Your task to perform on an android device: see creations saved in the google photos Image 0: 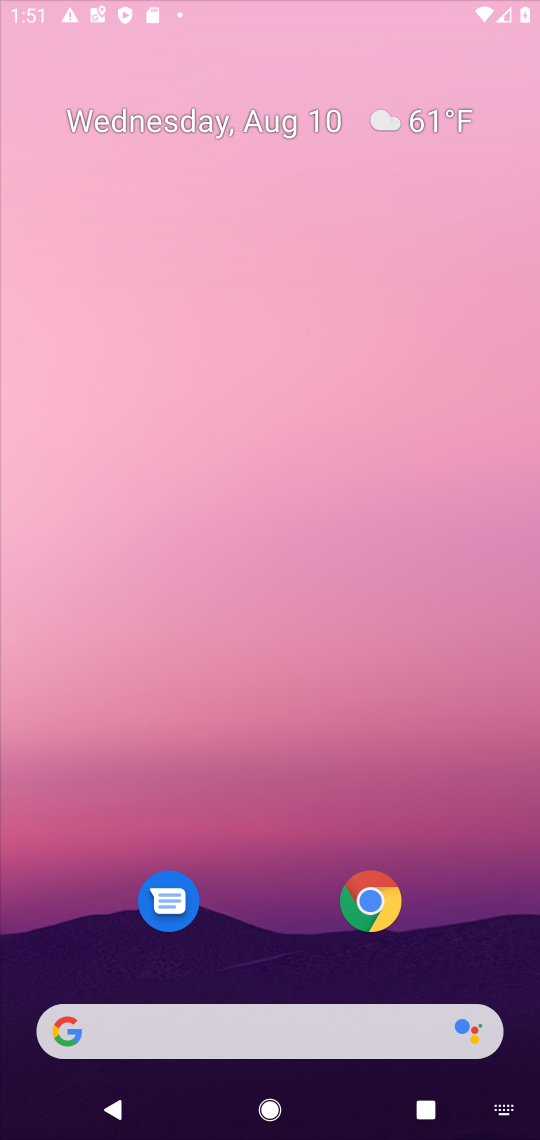
Step 0: click (152, 82)
Your task to perform on an android device: see creations saved in the google photos Image 1: 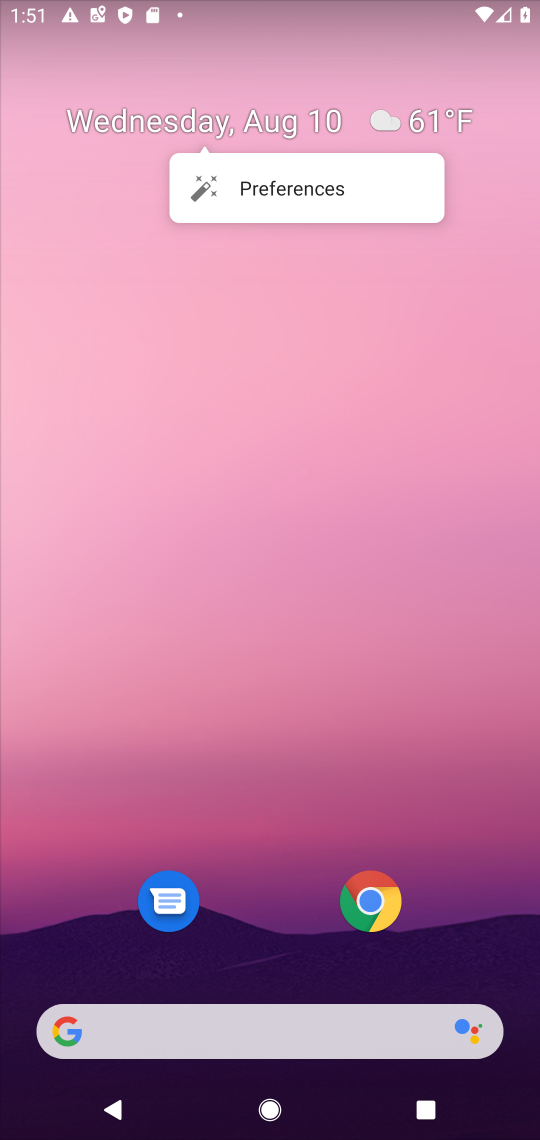
Step 1: click (203, 37)
Your task to perform on an android device: see creations saved in the google photos Image 2: 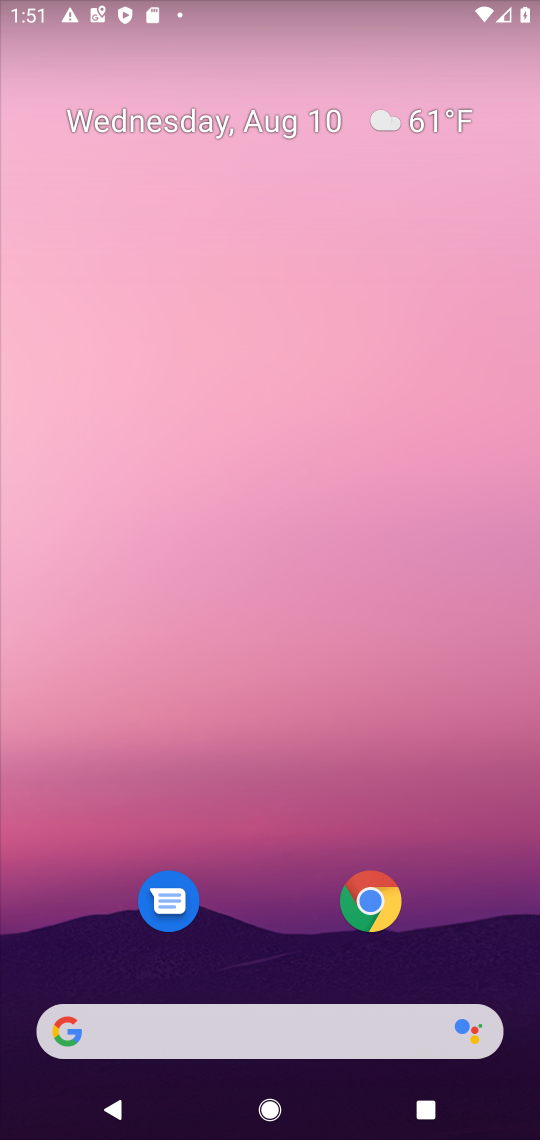
Step 2: drag from (282, 944) to (200, 127)
Your task to perform on an android device: see creations saved in the google photos Image 3: 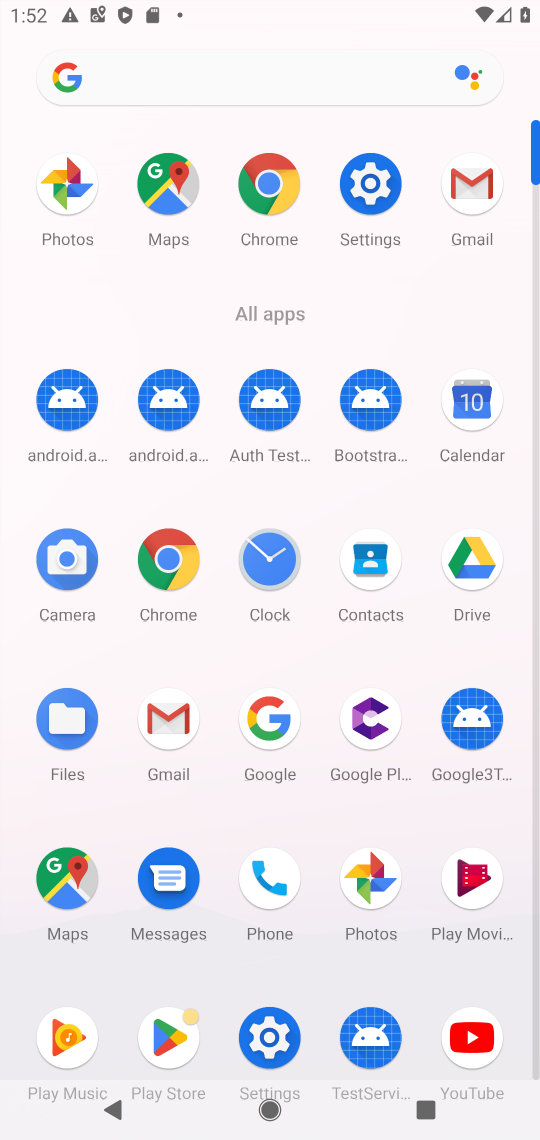
Step 3: click (64, 187)
Your task to perform on an android device: see creations saved in the google photos Image 4: 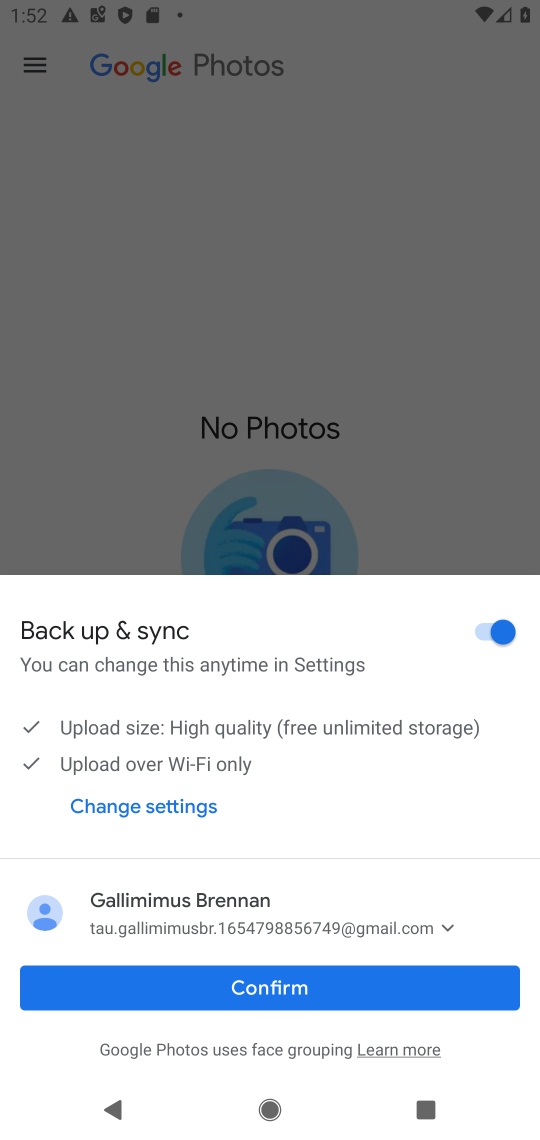
Step 4: click (309, 987)
Your task to perform on an android device: see creations saved in the google photos Image 5: 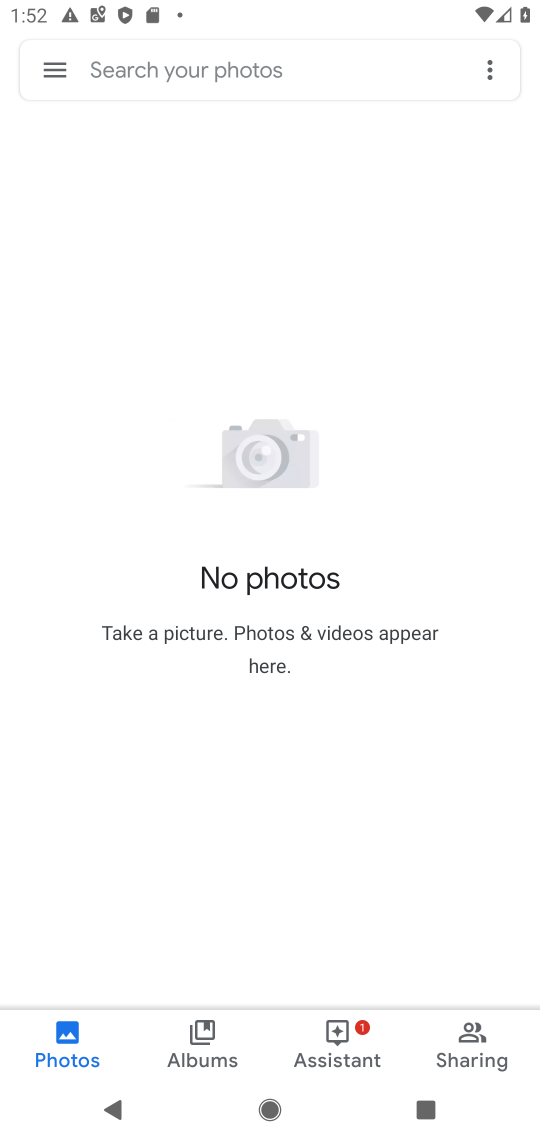
Step 5: click (187, 54)
Your task to perform on an android device: see creations saved in the google photos Image 6: 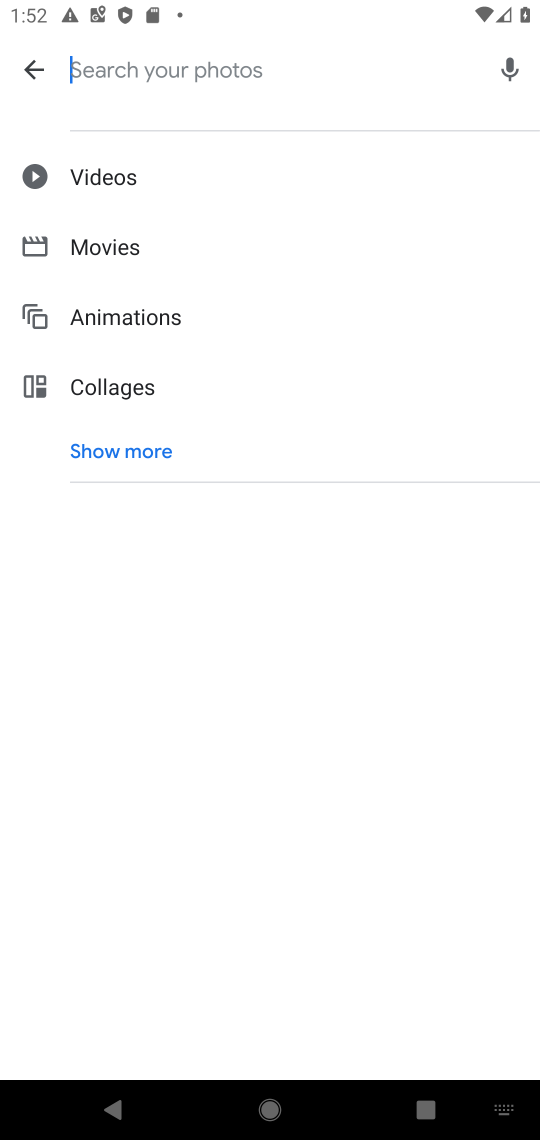
Step 6: click (129, 444)
Your task to perform on an android device: see creations saved in the google photos Image 7: 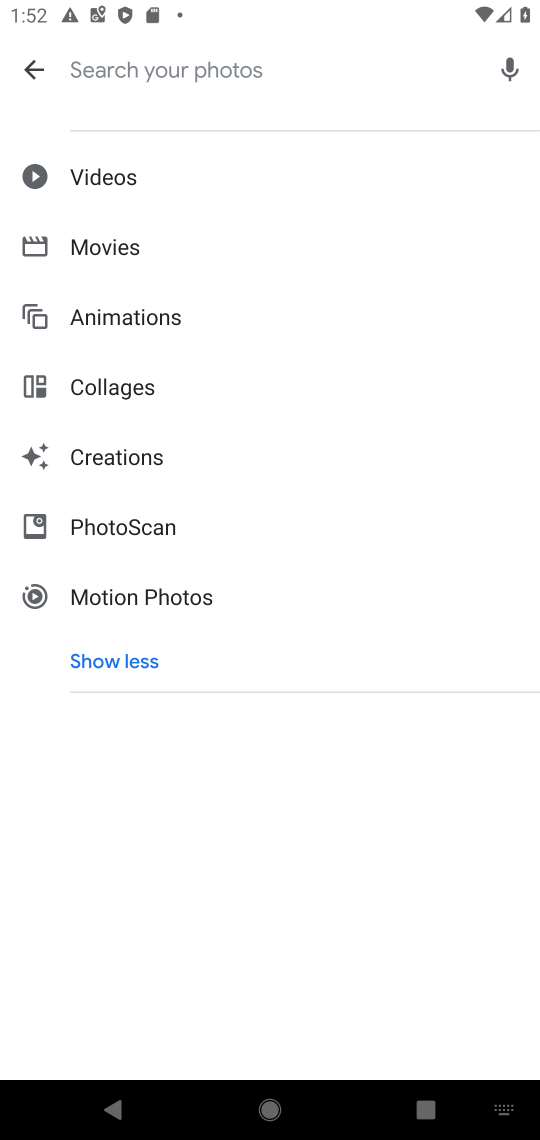
Step 7: click (115, 444)
Your task to perform on an android device: see creations saved in the google photos Image 8: 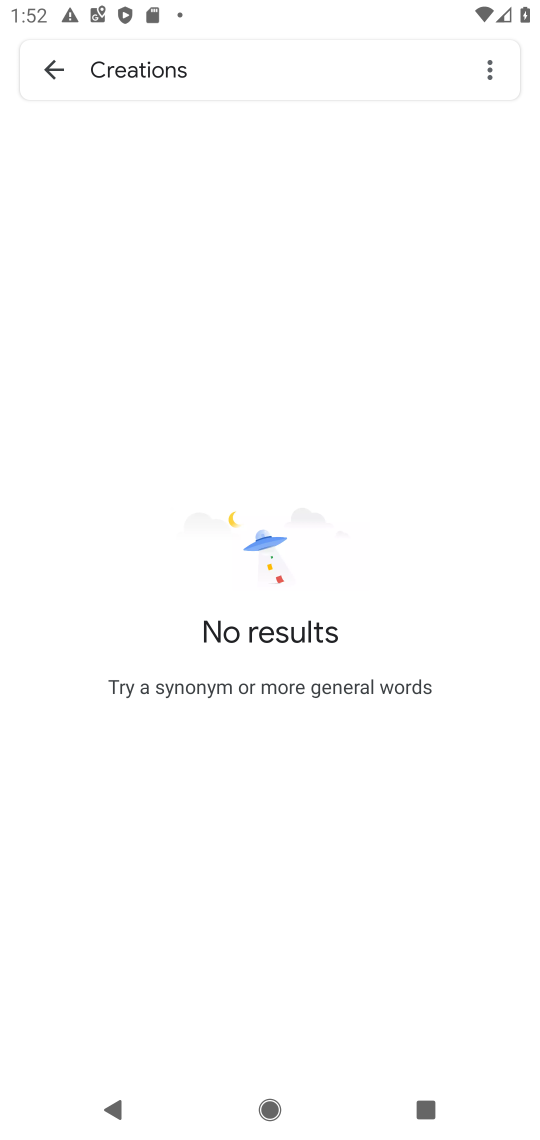
Step 8: task complete